Your task to perform on an android device: snooze an email in the gmail app Image 0: 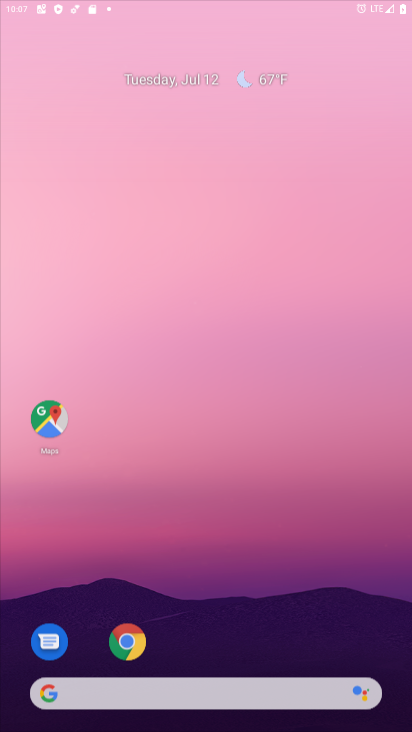
Step 0: click (214, 254)
Your task to perform on an android device: snooze an email in the gmail app Image 1: 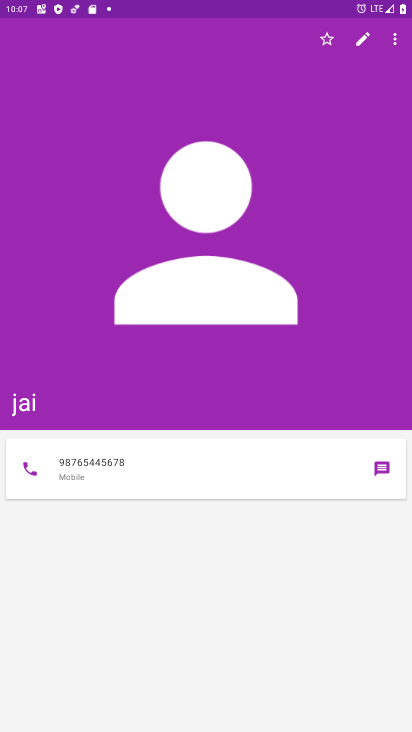
Step 1: drag from (215, 571) to (253, 164)
Your task to perform on an android device: snooze an email in the gmail app Image 2: 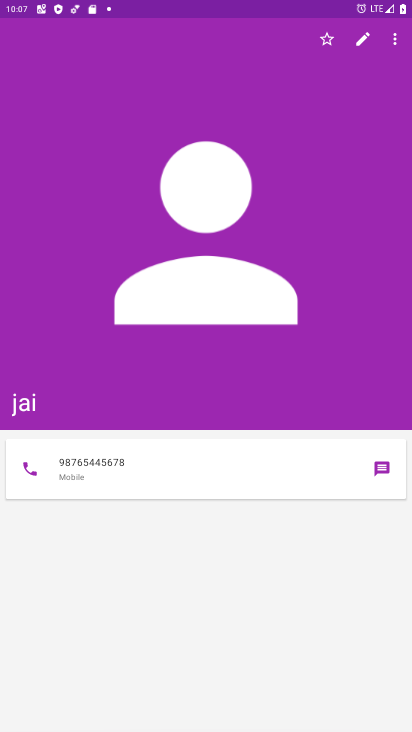
Step 2: press home button
Your task to perform on an android device: snooze an email in the gmail app Image 3: 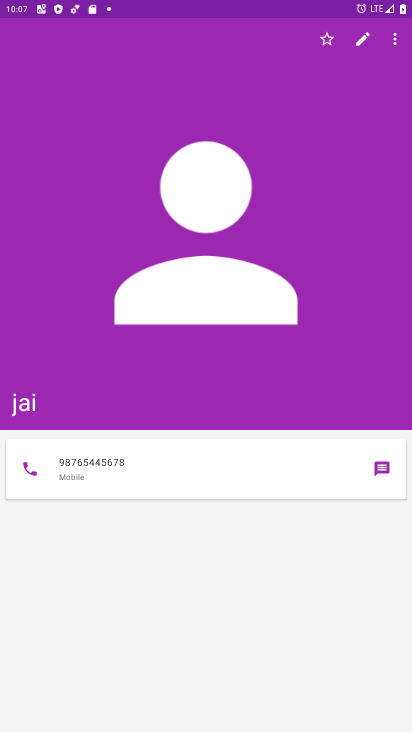
Step 3: press home button
Your task to perform on an android device: snooze an email in the gmail app Image 4: 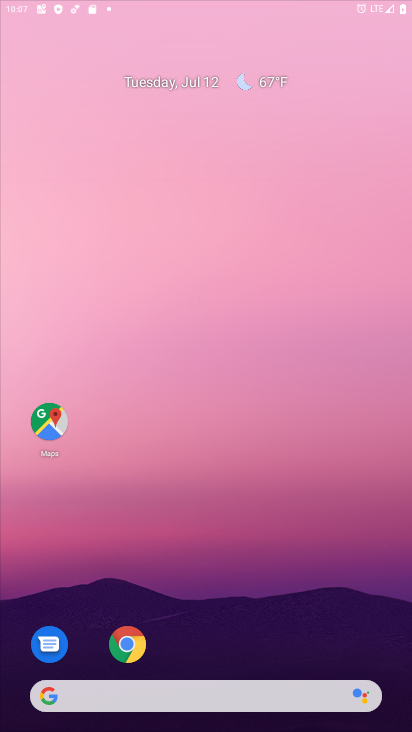
Step 4: drag from (190, 544) to (213, 254)
Your task to perform on an android device: snooze an email in the gmail app Image 5: 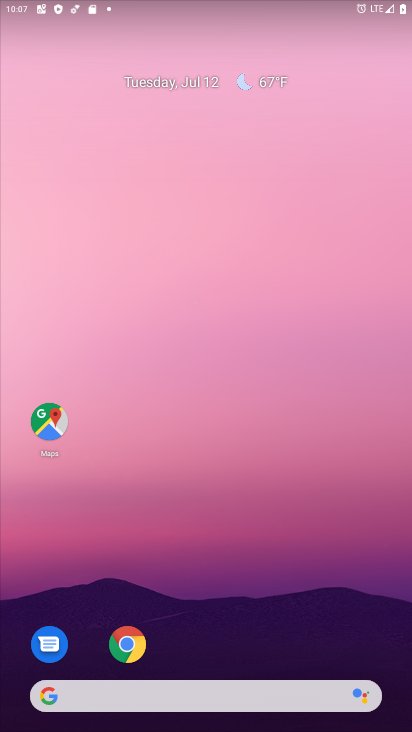
Step 5: drag from (202, 432) to (242, 150)
Your task to perform on an android device: snooze an email in the gmail app Image 6: 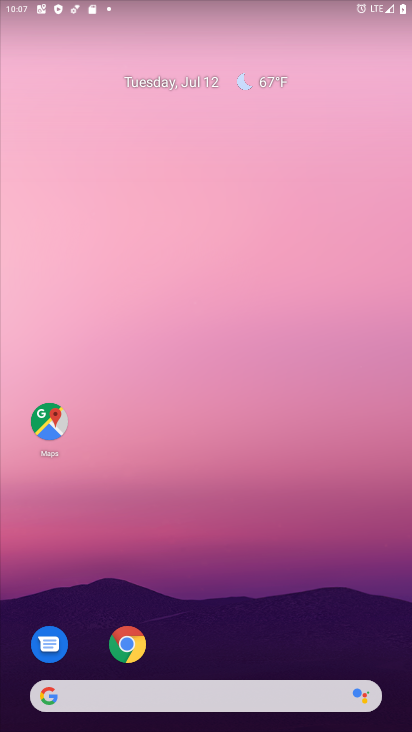
Step 6: drag from (192, 609) to (219, 177)
Your task to perform on an android device: snooze an email in the gmail app Image 7: 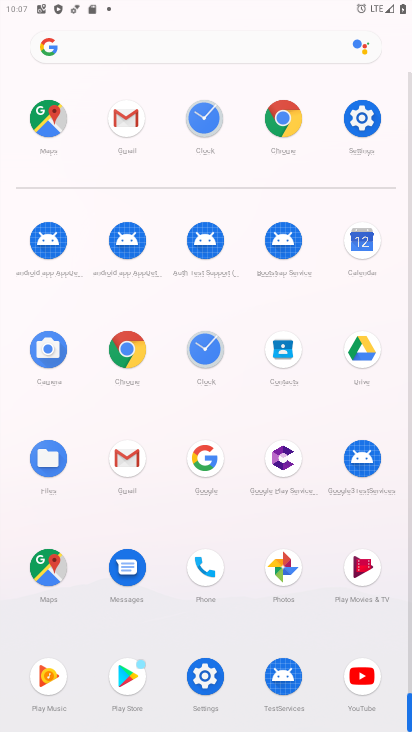
Step 7: click (127, 460)
Your task to perform on an android device: snooze an email in the gmail app Image 8: 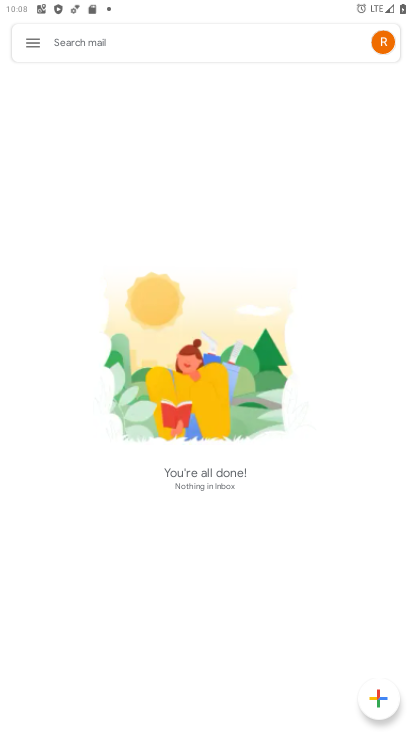
Step 8: drag from (178, 581) to (189, 420)
Your task to perform on an android device: snooze an email in the gmail app Image 9: 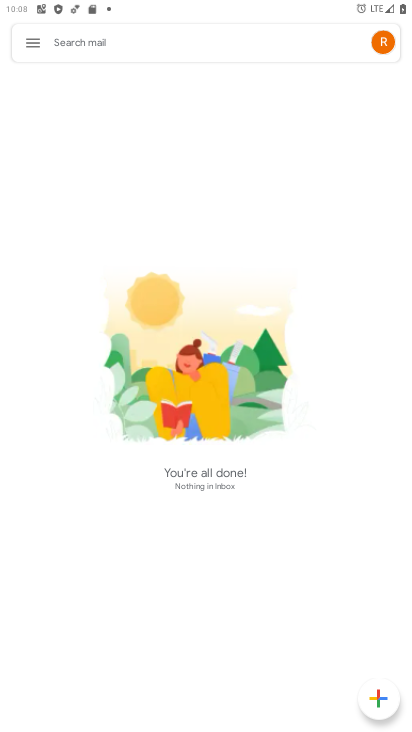
Step 9: drag from (191, 500) to (217, 257)
Your task to perform on an android device: snooze an email in the gmail app Image 10: 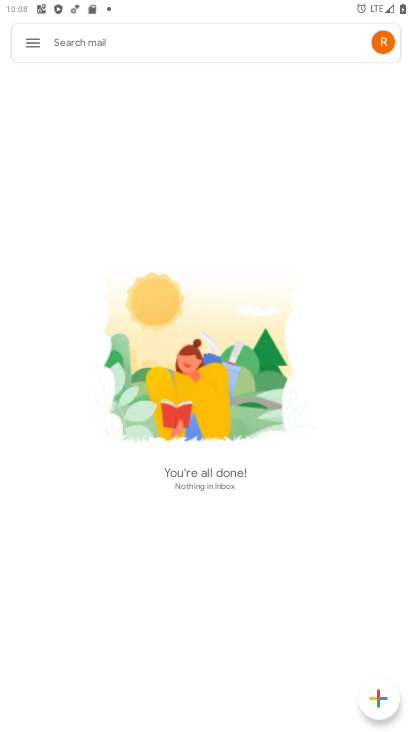
Step 10: drag from (195, 521) to (237, 241)
Your task to perform on an android device: snooze an email in the gmail app Image 11: 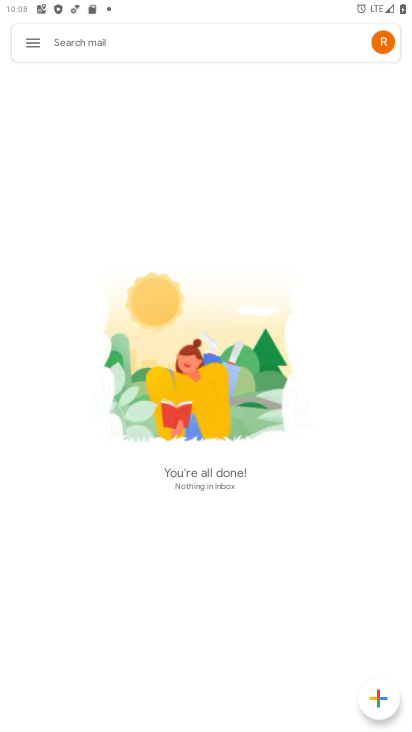
Step 11: drag from (148, 450) to (197, 275)
Your task to perform on an android device: snooze an email in the gmail app Image 12: 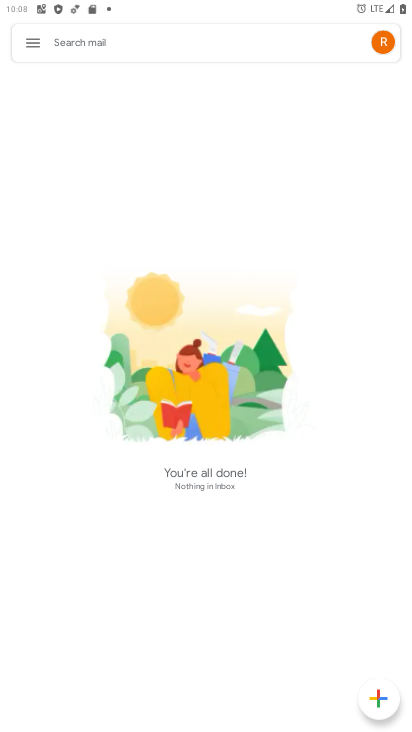
Step 12: click (216, 171)
Your task to perform on an android device: snooze an email in the gmail app Image 13: 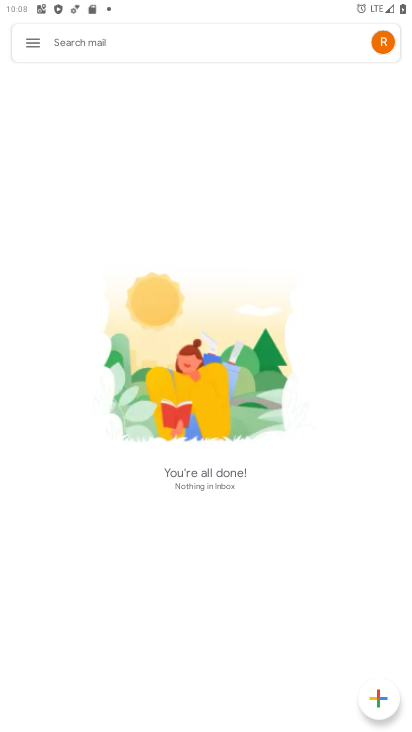
Step 13: drag from (194, 458) to (200, 315)
Your task to perform on an android device: snooze an email in the gmail app Image 14: 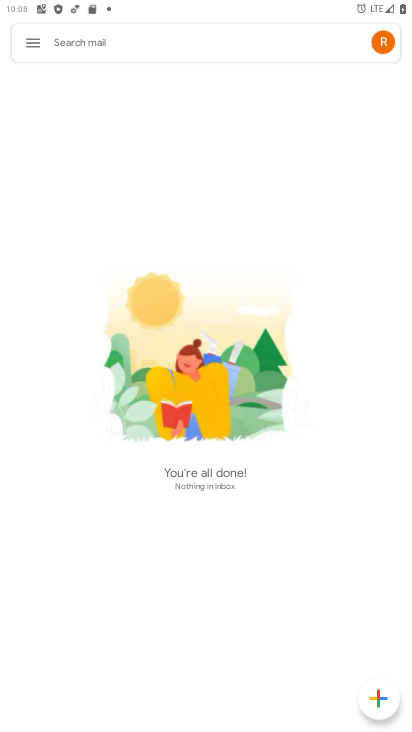
Step 14: click (33, 48)
Your task to perform on an android device: snooze an email in the gmail app Image 15: 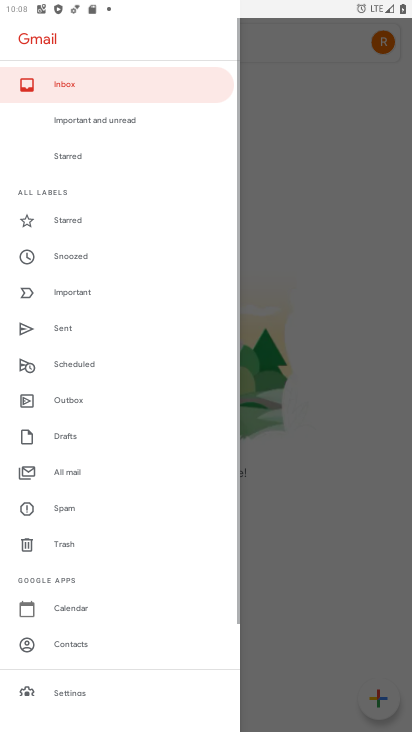
Step 15: drag from (79, 523) to (91, 291)
Your task to perform on an android device: snooze an email in the gmail app Image 16: 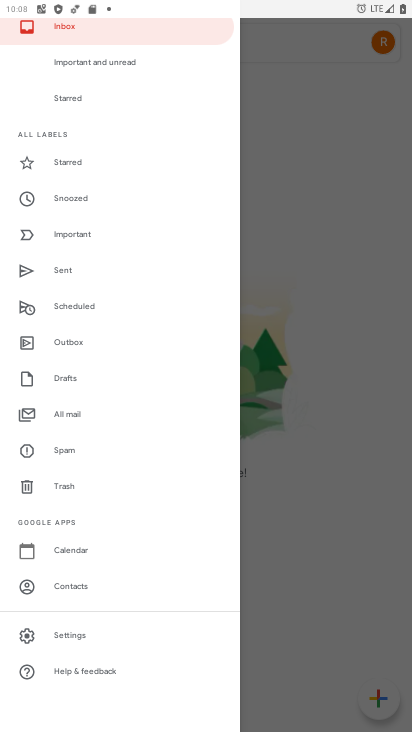
Step 16: click (68, 199)
Your task to perform on an android device: snooze an email in the gmail app Image 17: 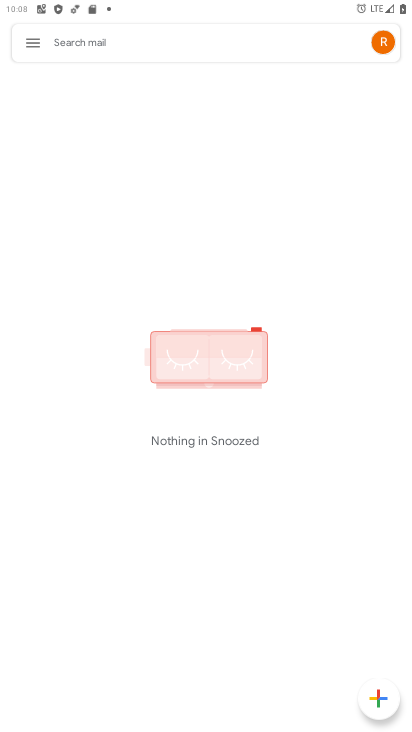
Step 17: drag from (175, 492) to (163, 302)
Your task to perform on an android device: snooze an email in the gmail app Image 18: 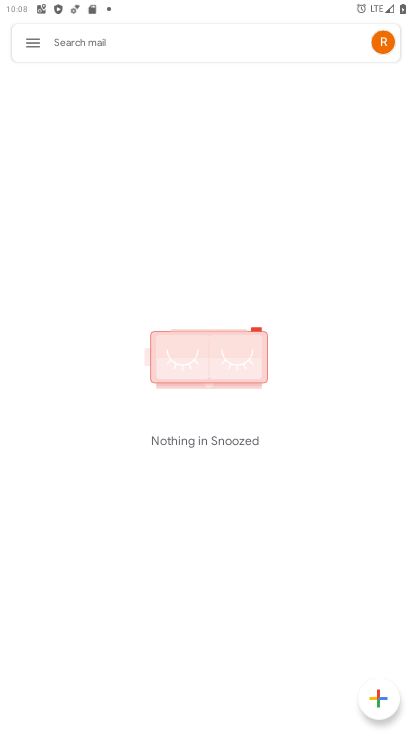
Step 18: drag from (241, 444) to (249, 372)
Your task to perform on an android device: snooze an email in the gmail app Image 19: 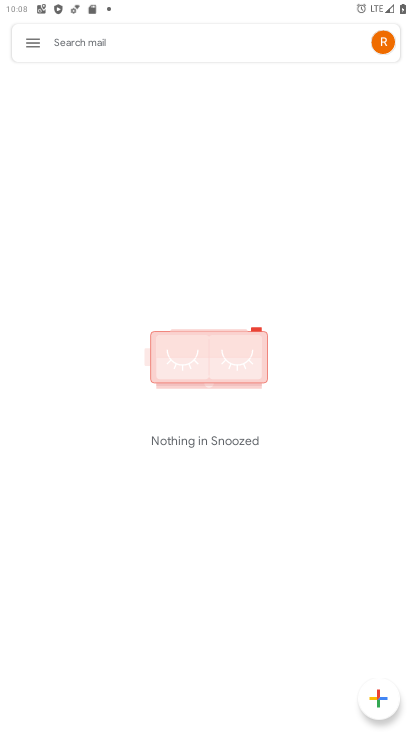
Step 19: drag from (201, 603) to (210, 440)
Your task to perform on an android device: snooze an email in the gmail app Image 20: 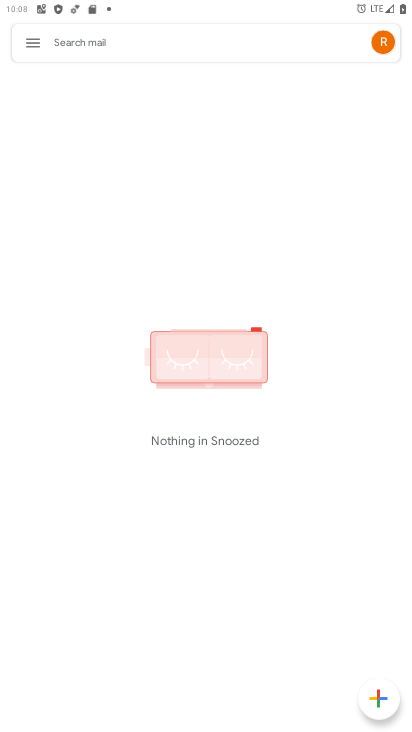
Step 20: click (231, 223)
Your task to perform on an android device: snooze an email in the gmail app Image 21: 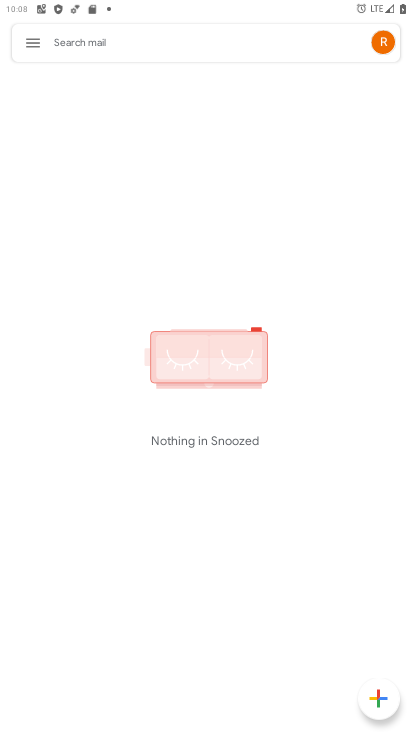
Step 21: task complete